Your task to perform on an android device: When is my next appointment? Image 0: 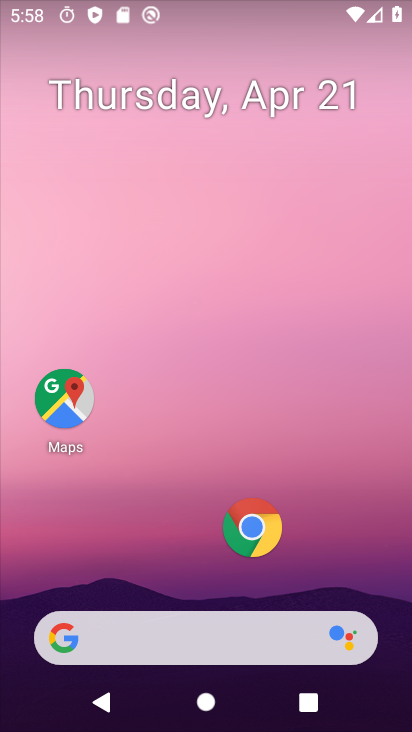
Step 0: drag from (180, 533) to (232, 42)
Your task to perform on an android device: When is my next appointment? Image 1: 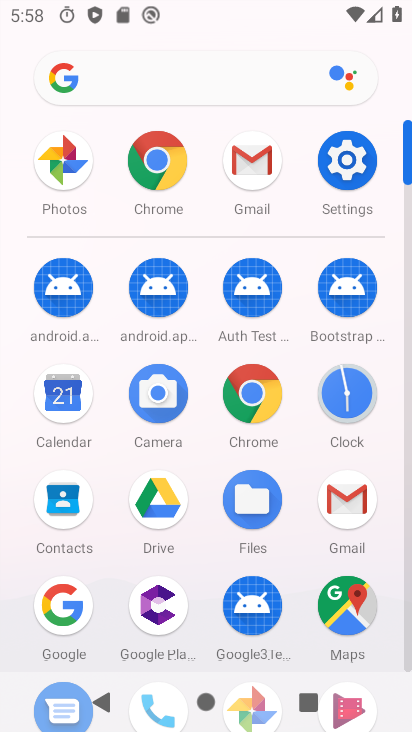
Step 1: click (65, 383)
Your task to perform on an android device: When is my next appointment? Image 2: 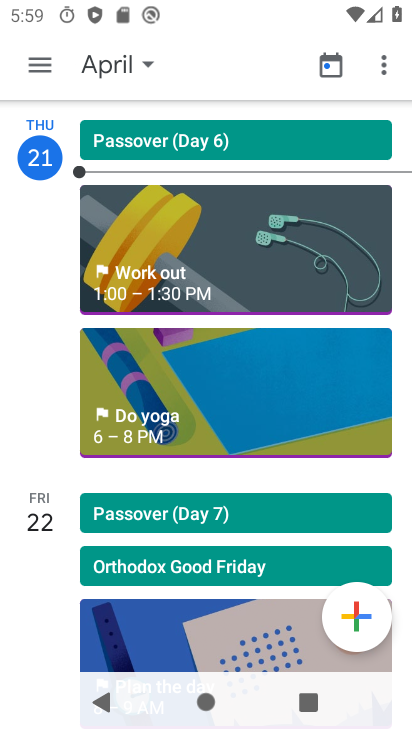
Step 2: task complete